Your task to perform on an android device: Open calendar and show me the first week of next month Image 0: 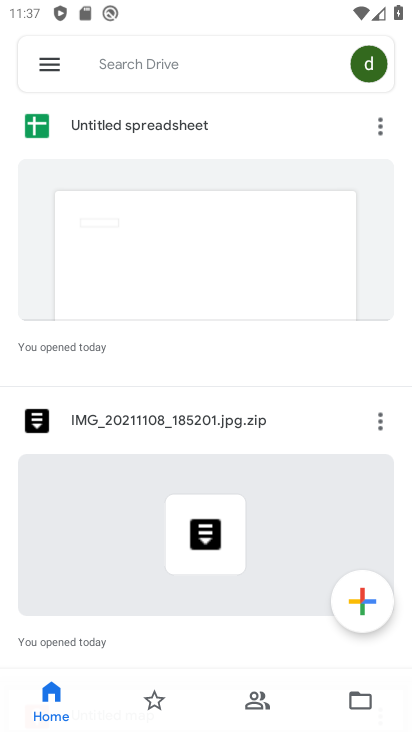
Step 0: press home button
Your task to perform on an android device: Open calendar and show me the first week of next month Image 1: 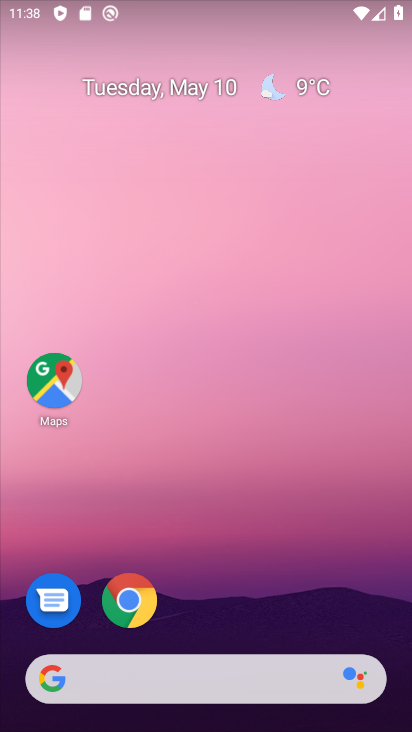
Step 1: drag from (182, 725) to (270, 161)
Your task to perform on an android device: Open calendar and show me the first week of next month Image 2: 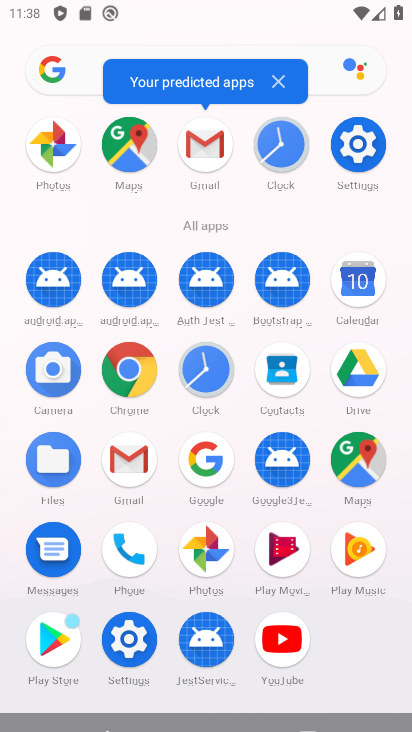
Step 2: click (358, 286)
Your task to perform on an android device: Open calendar and show me the first week of next month Image 3: 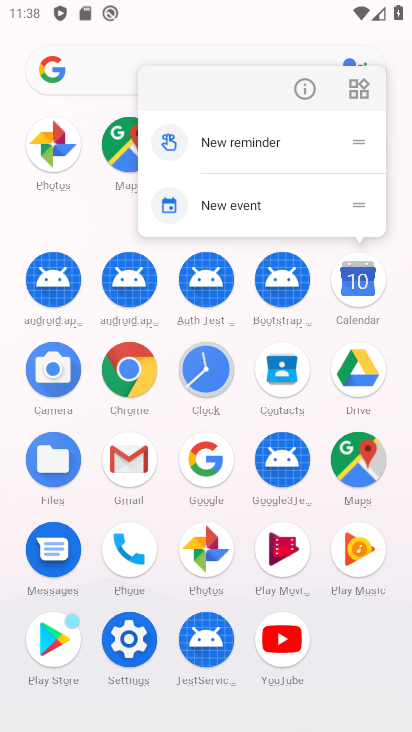
Step 3: click (358, 272)
Your task to perform on an android device: Open calendar and show me the first week of next month Image 4: 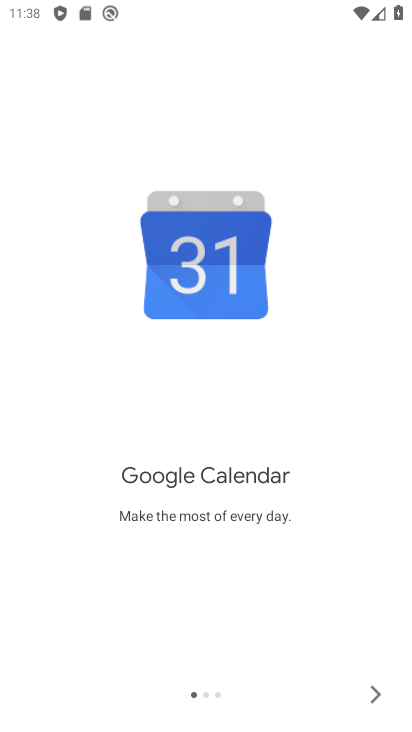
Step 4: click (373, 684)
Your task to perform on an android device: Open calendar and show me the first week of next month Image 5: 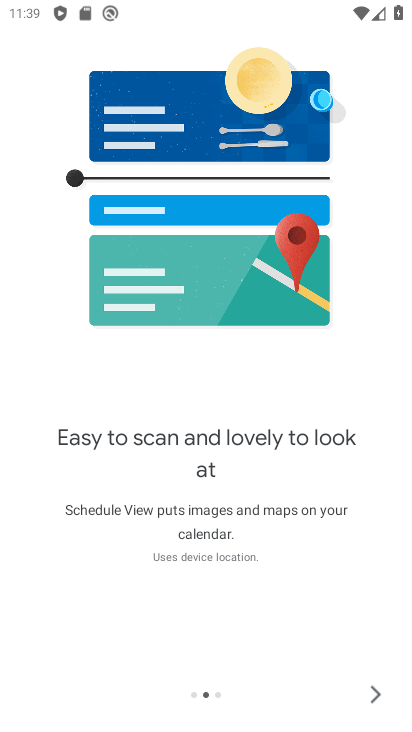
Step 5: click (367, 693)
Your task to perform on an android device: Open calendar and show me the first week of next month Image 6: 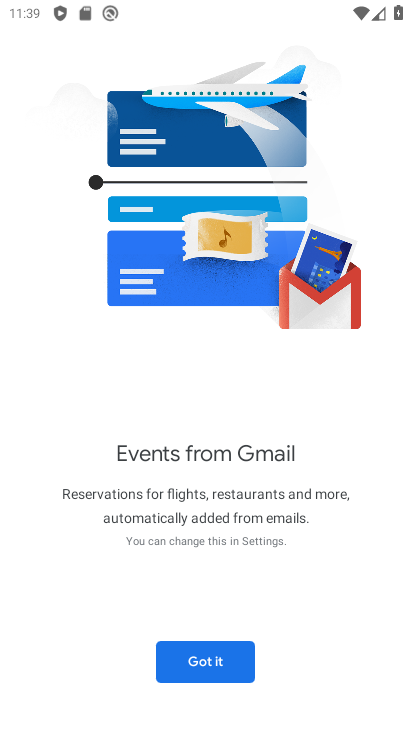
Step 6: click (206, 664)
Your task to perform on an android device: Open calendar and show me the first week of next month Image 7: 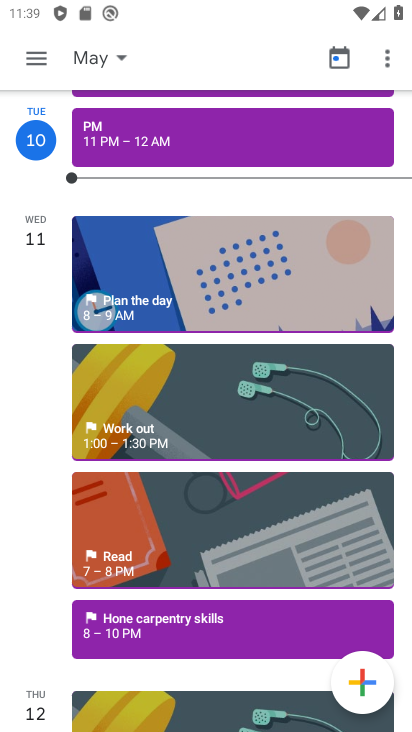
Step 7: click (84, 56)
Your task to perform on an android device: Open calendar and show me the first week of next month Image 8: 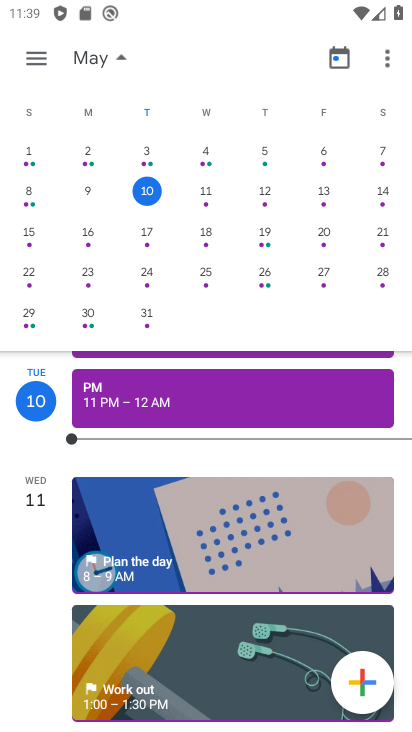
Step 8: drag from (329, 200) to (5, 225)
Your task to perform on an android device: Open calendar and show me the first week of next month Image 9: 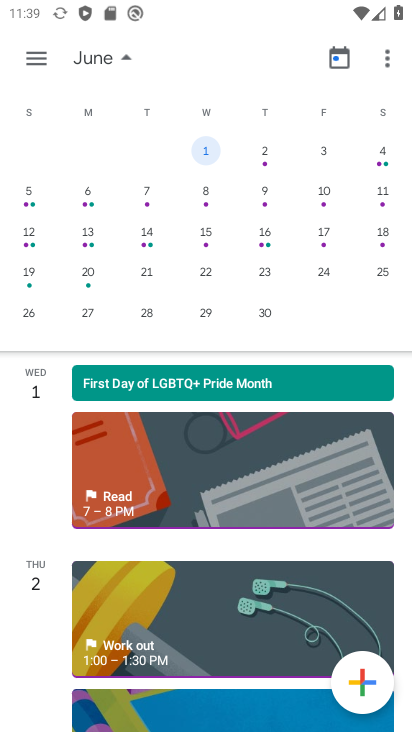
Step 9: click (209, 150)
Your task to perform on an android device: Open calendar and show me the first week of next month Image 10: 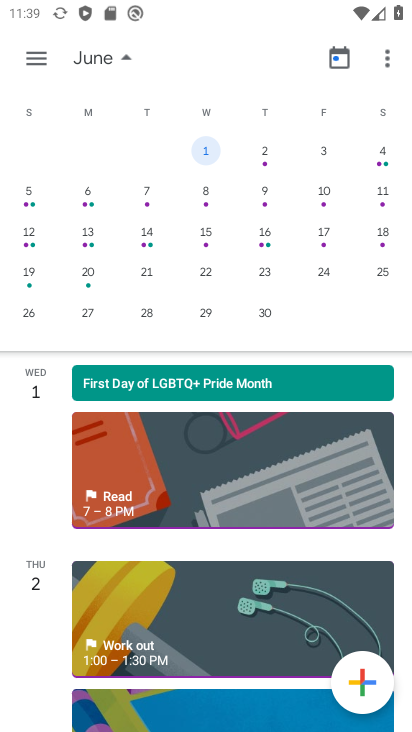
Step 10: task complete